Your task to perform on an android device: Go to Google Image 0: 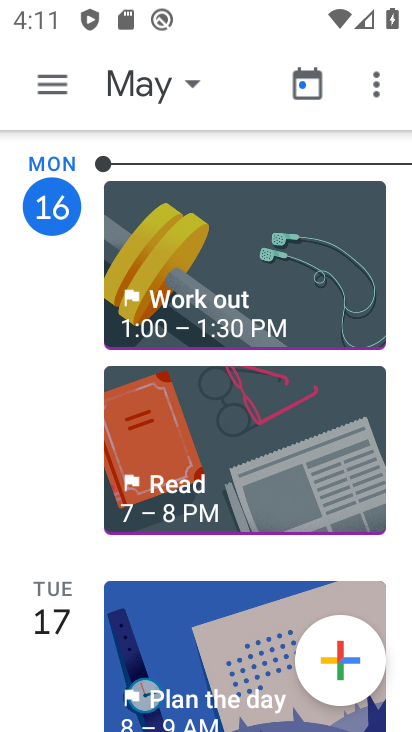
Step 0: press back button
Your task to perform on an android device: Go to Google Image 1: 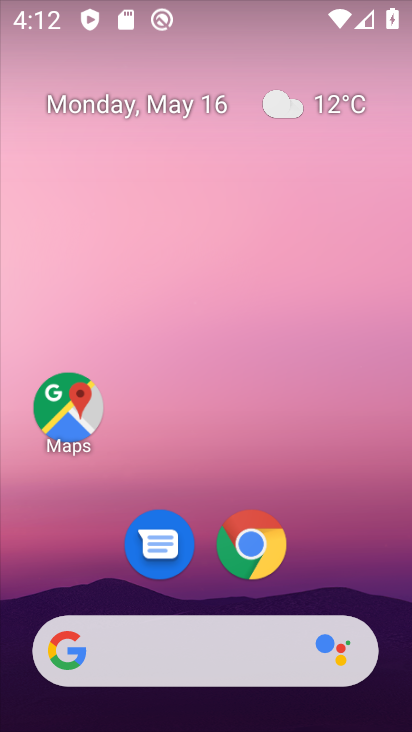
Step 1: drag from (320, 568) to (222, 93)
Your task to perform on an android device: Go to Google Image 2: 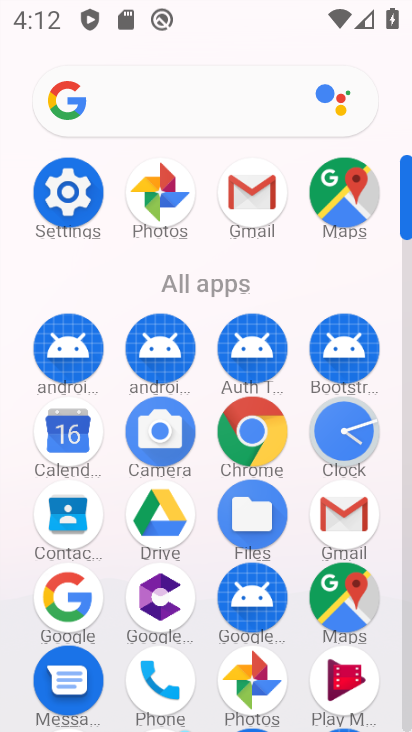
Step 2: click (63, 595)
Your task to perform on an android device: Go to Google Image 3: 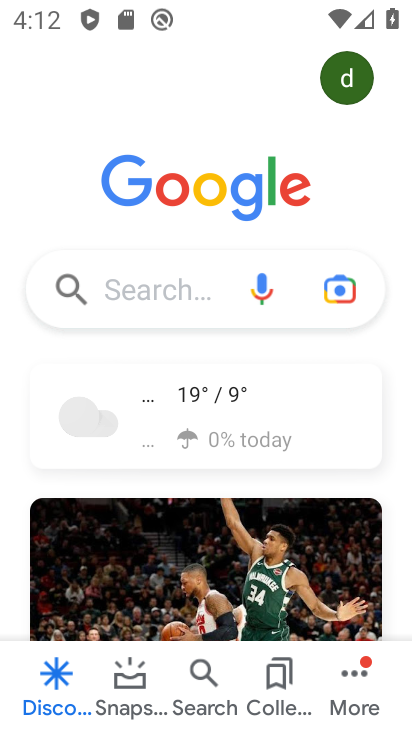
Step 3: task complete